Your task to perform on an android device: Open Google Chrome and click the shortcut for Amazon.com Image 0: 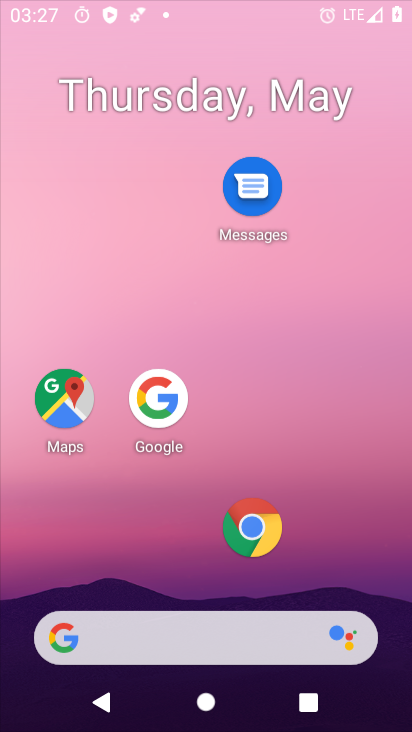
Step 0: click (224, 276)
Your task to perform on an android device: Open Google Chrome and click the shortcut for Amazon.com Image 1: 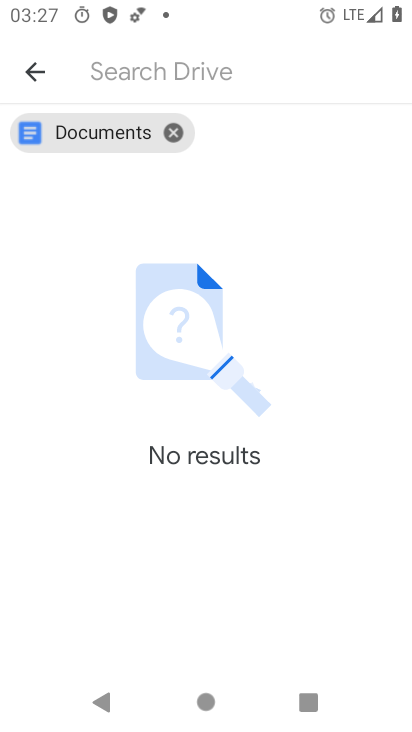
Step 1: press home button
Your task to perform on an android device: Open Google Chrome and click the shortcut for Amazon.com Image 2: 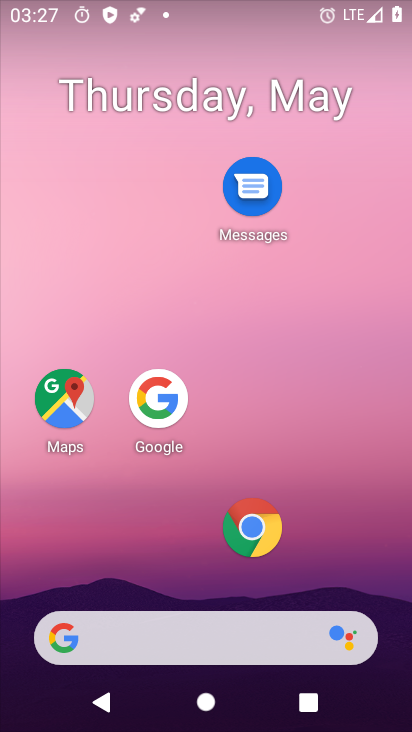
Step 2: click (244, 525)
Your task to perform on an android device: Open Google Chrome and click the shortcut for Amazon.com Image 3: 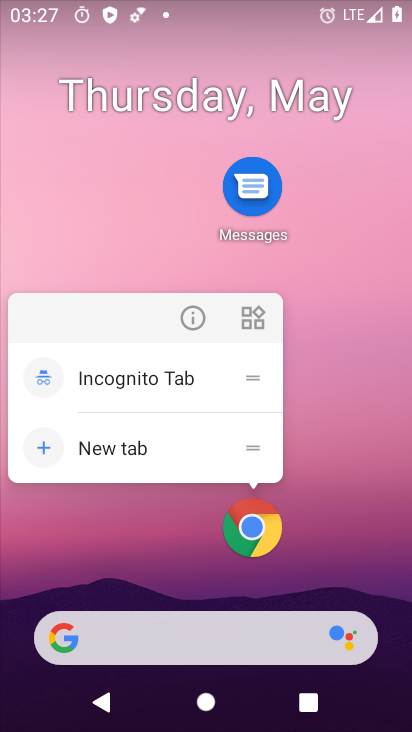
Step 3: click (192, 319)
Your task to perform on an android device: Open Google Chrome and click the shortcut for Amazon.com Image 4: 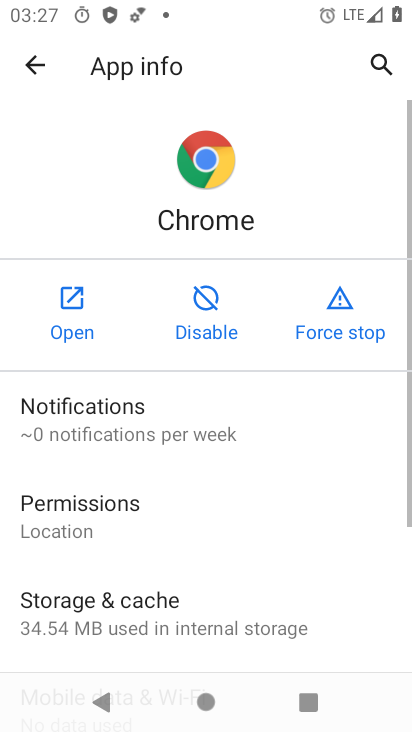
Step 4: click (68, 304)
Your task to perform on an android device: Open Google Chrome and click the shortcut for Amazon.com Image 5: 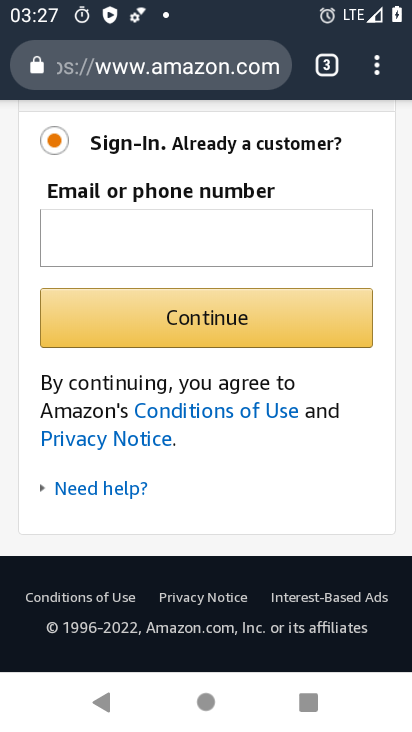
Step 5: click (341, 54)
Your task to perform on an android device: Open Google Chrome and click the shortcut for Amazon.com Image 6: 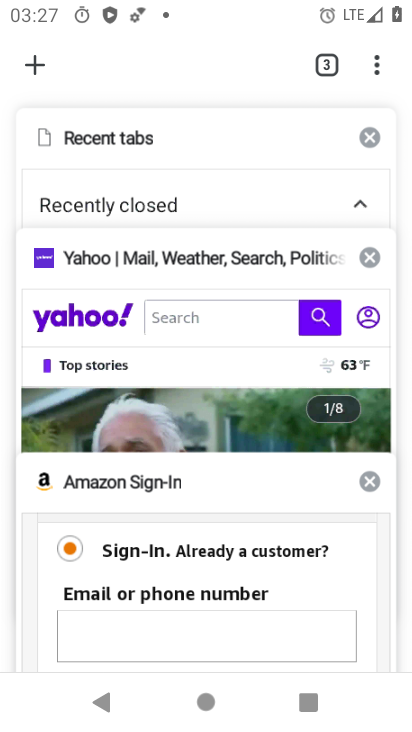
Step 6: click (34, 51)
Your task to perform on an android device: Open Google Chrome and click the shortcut for Amazon.com Image 7: 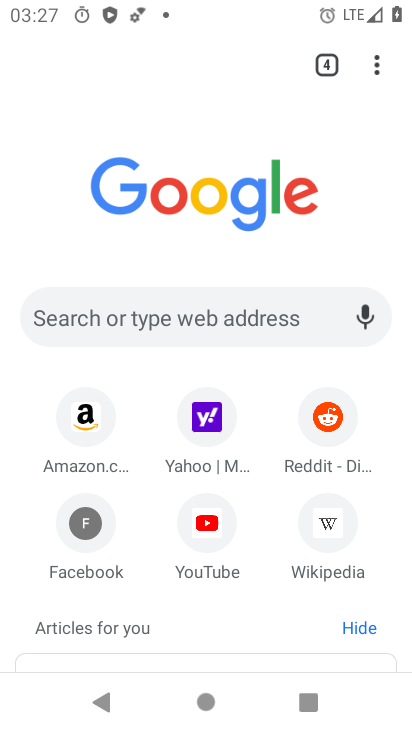
Step 7: click (83, 393)
Your task to perform on an android device: Open Google Chrome and click the shortcut for Amazon.com Image 8: 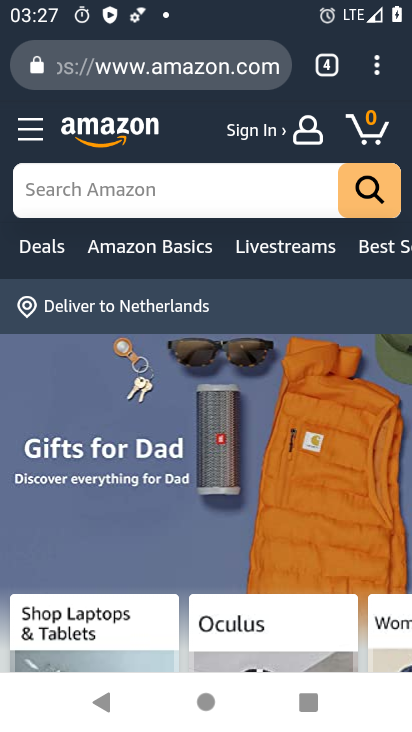
Step 8: task complete